Your task to perform on an android device: open the mobile data screen to see how much data has been used Image 0: 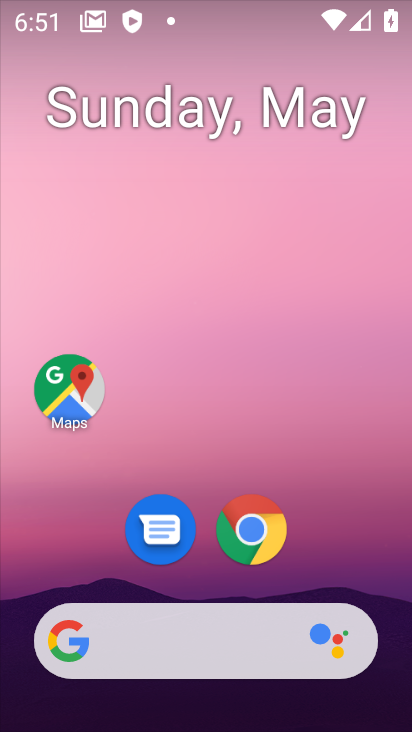
Step 0: drag from (293, 487) to (369, 35)
Your task to perform on an android device: open the mobile data screen to see how much data has been used Image 1: 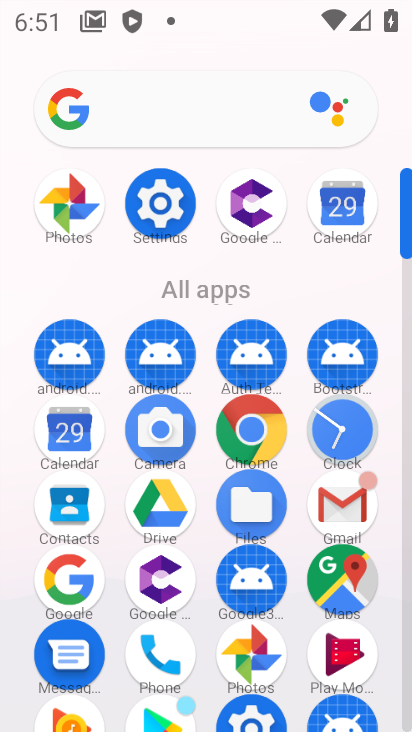
Step 1: click (147, 203)
Your task to perform on an android device: open the mobile data screen to see how much data has been used Image 2: 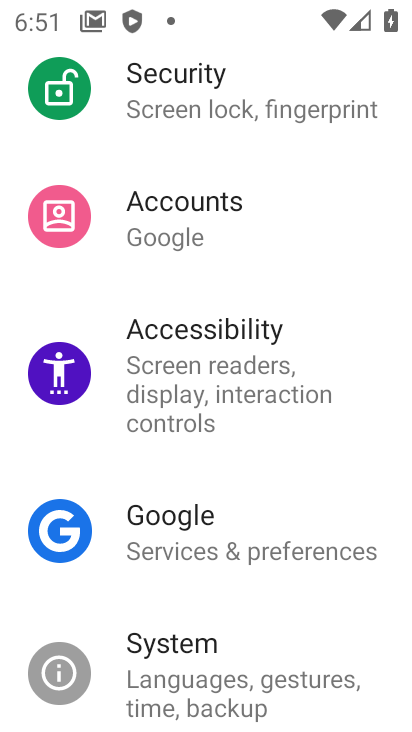
Step 2: drag from (185, 154) to (58, 425)
Your task to perform on an android device: open the mobile data screen to see how much data has been used Image 3: 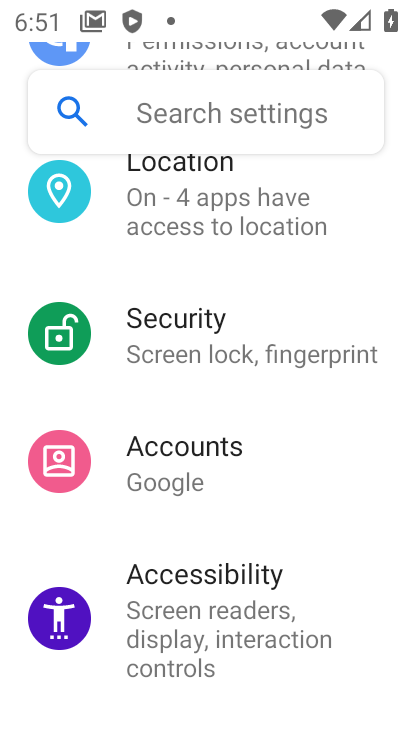
Step 3: drag from (335, 190) to (277, 726)
Your task to perform on an android device: open the mobile data screen to see how much data has been used Image 4: 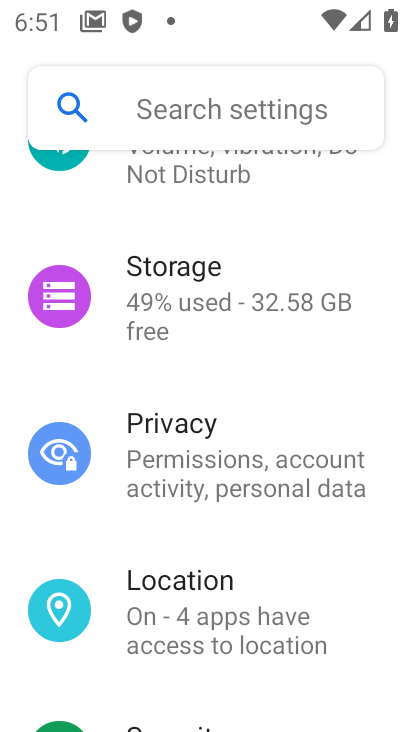
Step 4: drag from (339, 223) to (268, 573)
Your task to perform on an android device: open the mobile data screen to see how much data has been used Image 5: 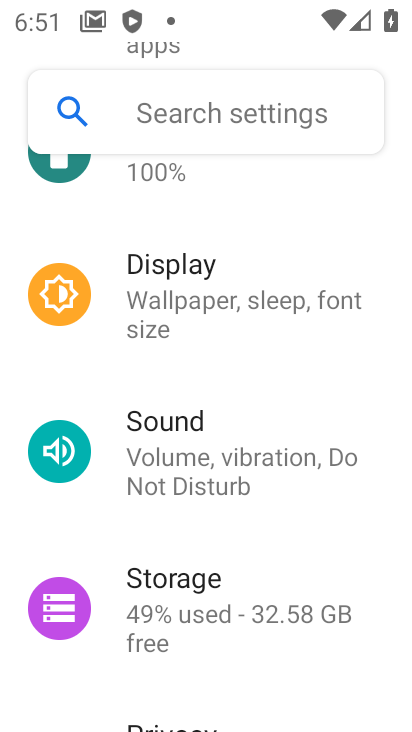
Step 5: drag from (322, 235) to (154, 600)
Your task to perform on an android device: open the mobile data screen to see how much data has been used Image 6: 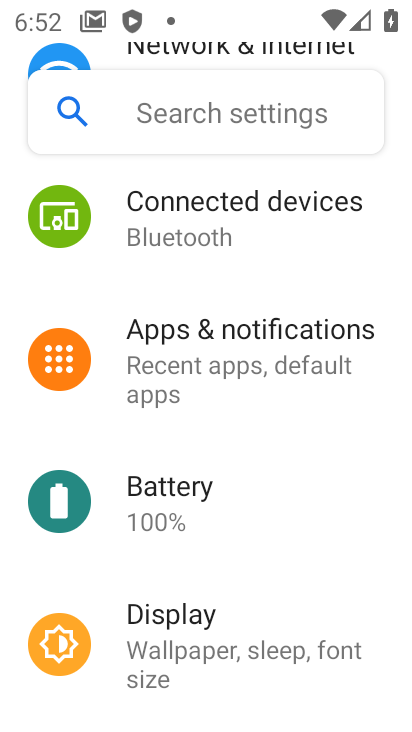
Step 6: drag from (317, 276) to (296, 566)
Your task to perform on an android device: open the mobile data screen to see how much data has been used Image 7: 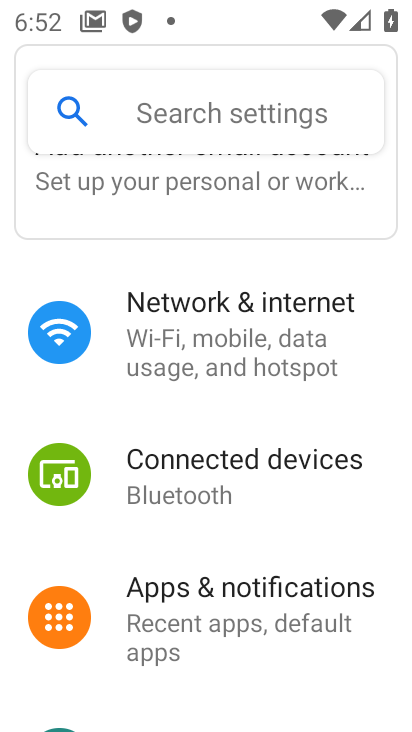
Step 7: click (261, 325)
Your task to perform on an android device: open the mobile data screen to see how much data has been used Image 8: 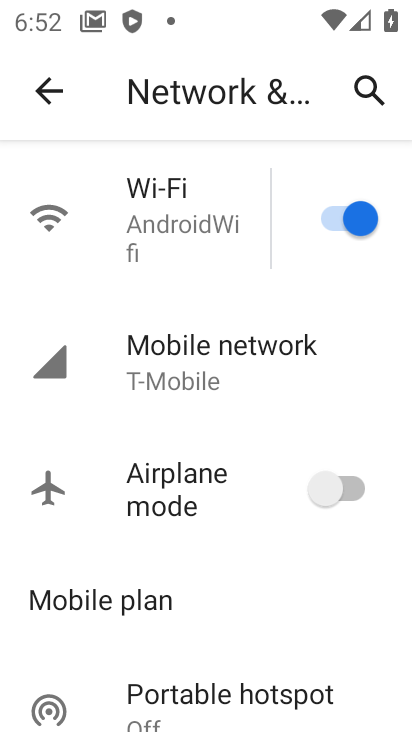
Step 8: click (189, 360)
Your task to perform on an android device: open the mobile data screen to see how much data has been used Image 9: 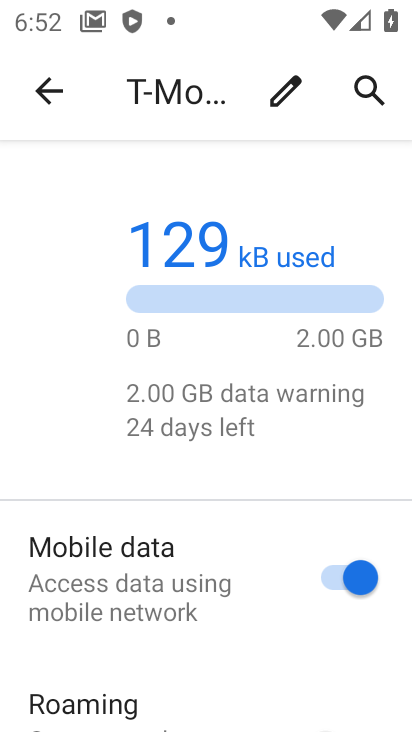
Step 9: drag from (165, 542) to (233, 234)
Your task to perform on an android device: open the mobile data screen to see how much data has been used Image 10: 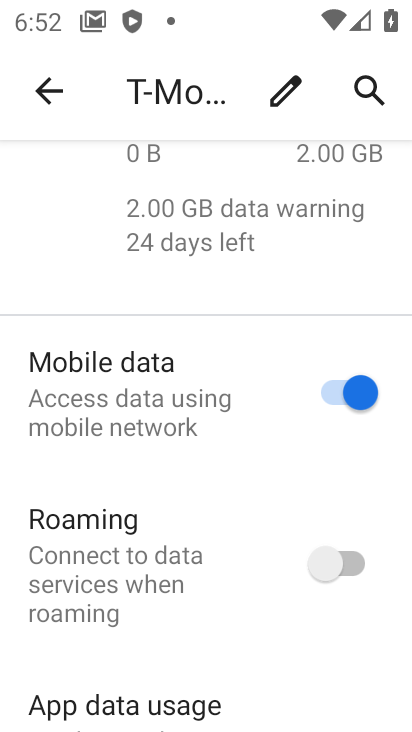
Step 10: click (58, 396)
Your task to perform on an android device: open the mobile data screen to see how much data has been used Image 11: 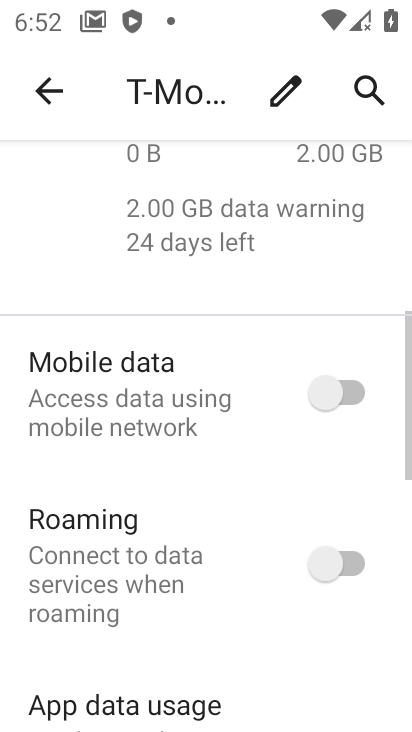
Step 11: click (59, 382)
Your task to perform on an android device: open the mobile data screen to see how much data has been used Image 12: 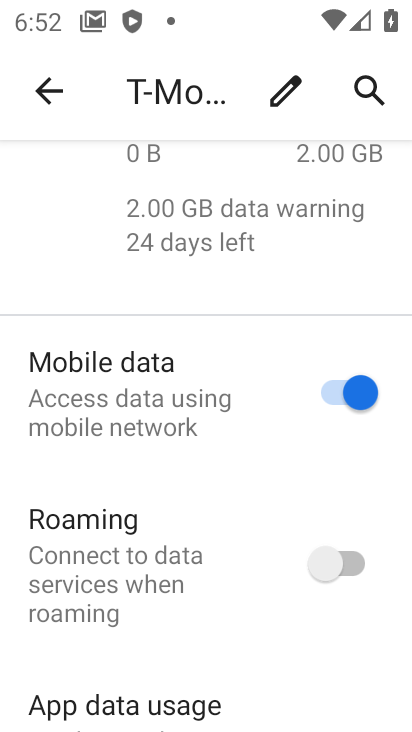
Step 12: task complete